Your task to perform on an android device: Add sony triple a to the cart on costco, then select checkout. Image 0: 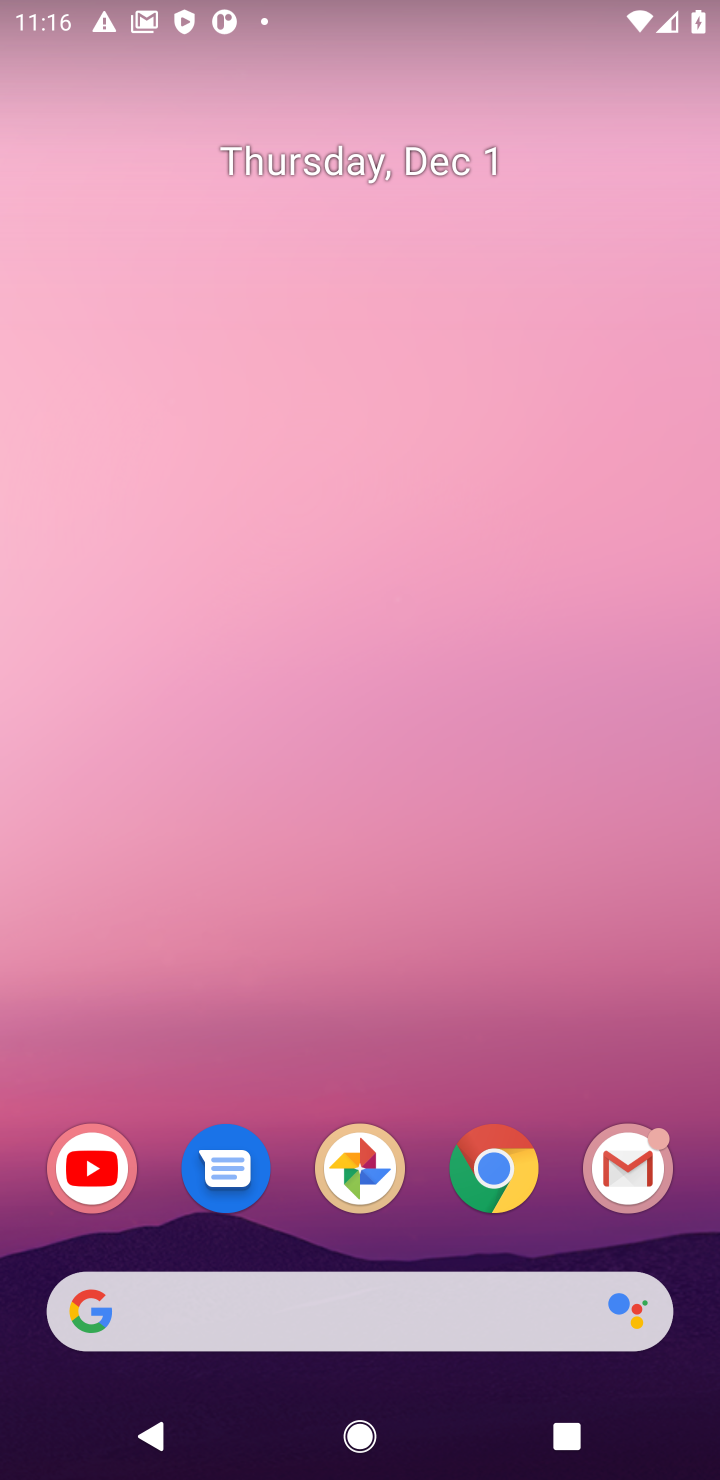
Step 0: click (491, 1183)
Your task to perform on an android device: Add sony triple a to the cart on costco, then select checkout. Image 1: 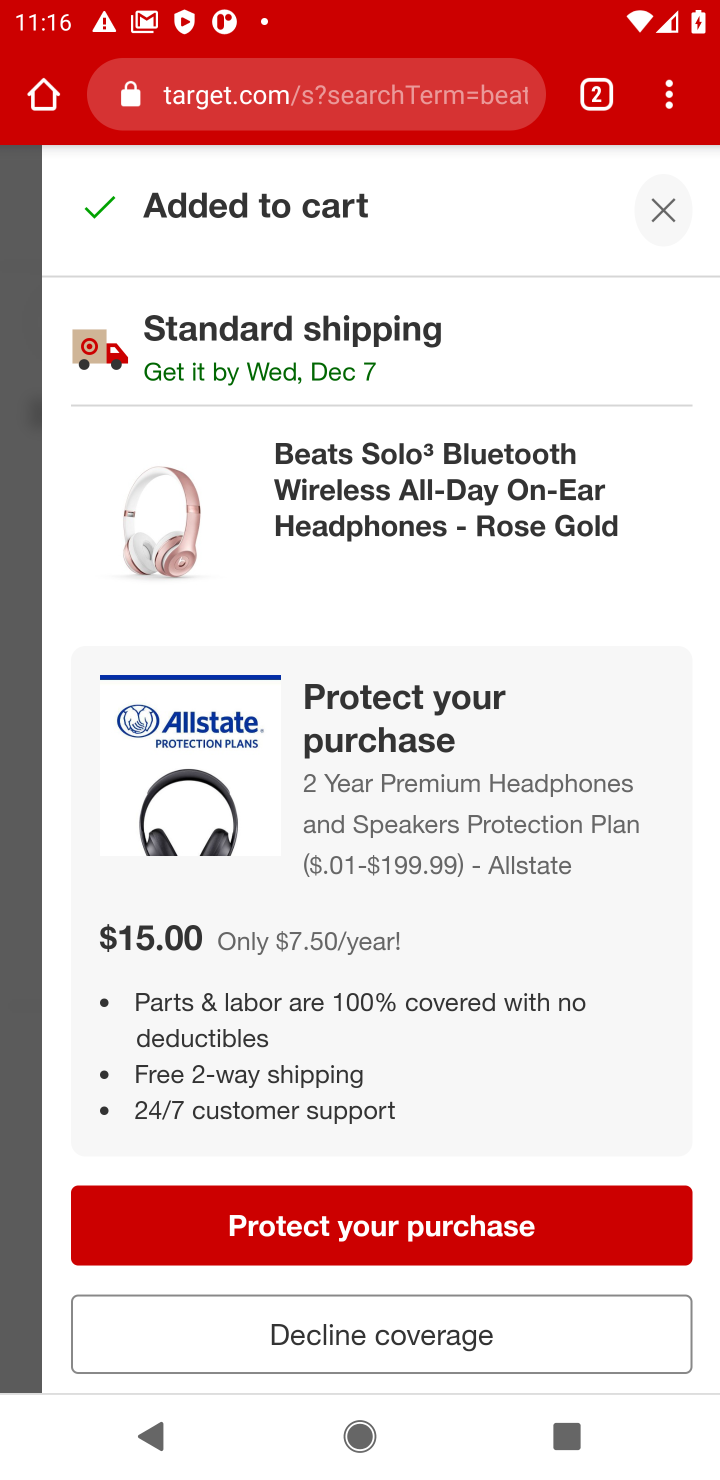
Step 1: click (287, 97)
Your task to perform on an android device: Add sony triple a to the cart on costco, then select checkout. Image 2: 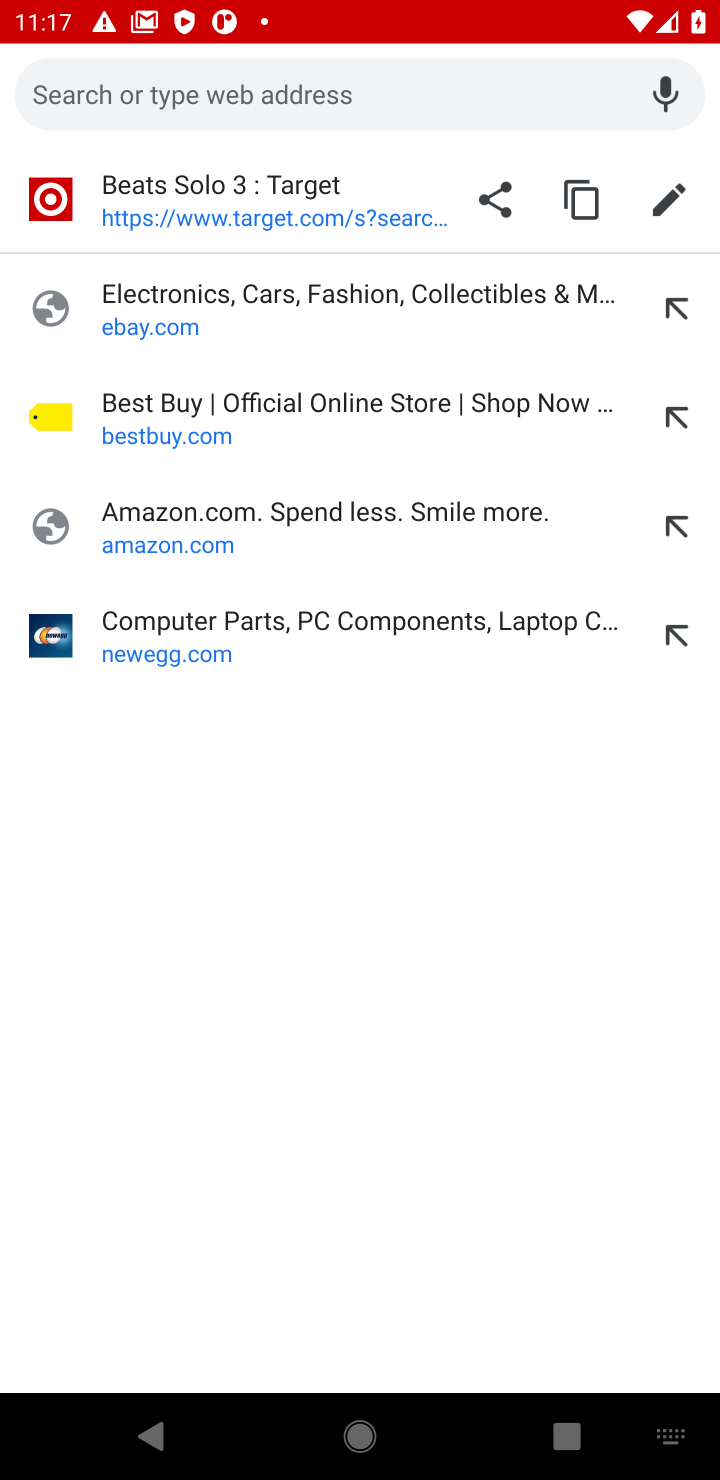
Step 2: type "costco.com"
Your task to perform on an android device: Add sony triple a to the cart on costco, then select checkout. Image 3: 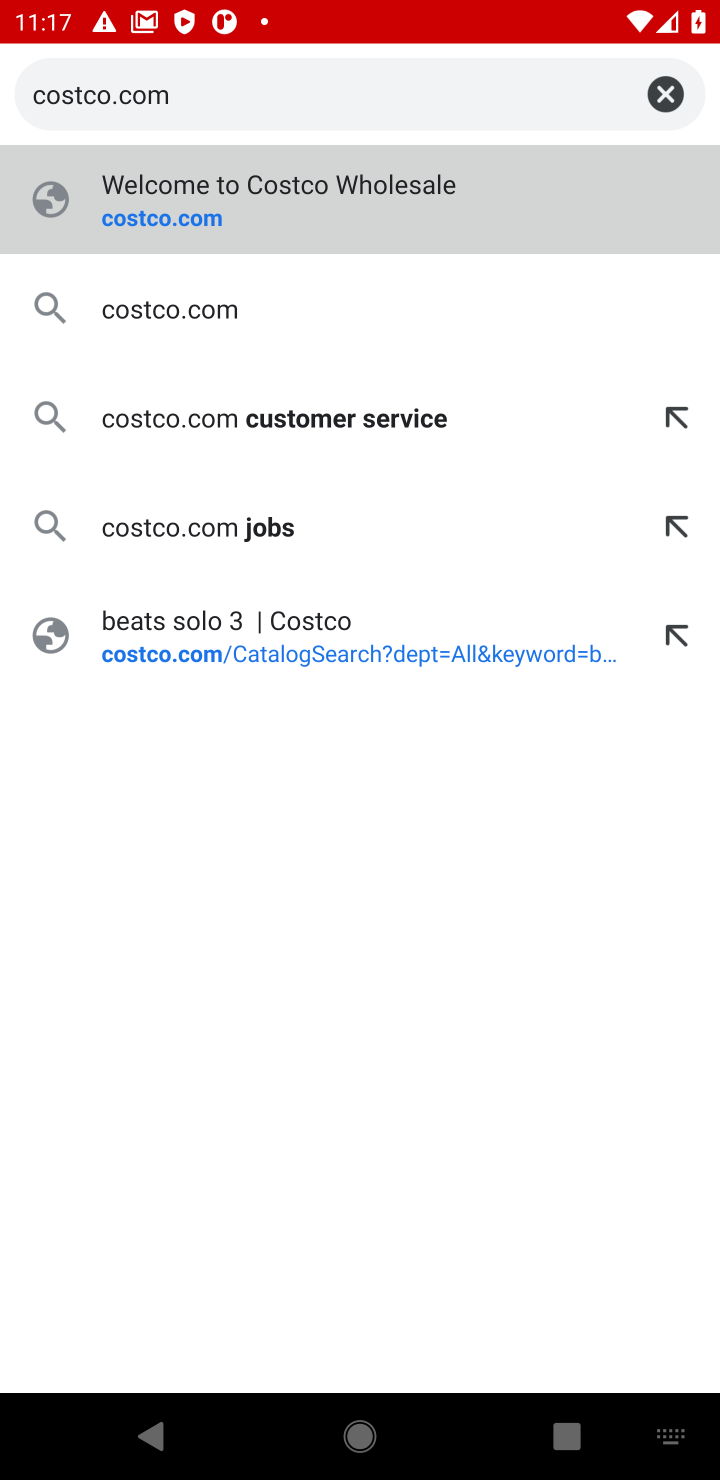
Step 3: click (145, 216)
Your task to perform on an android device: Add sony triple a to the cart on costco, then select checkout. Image 4: 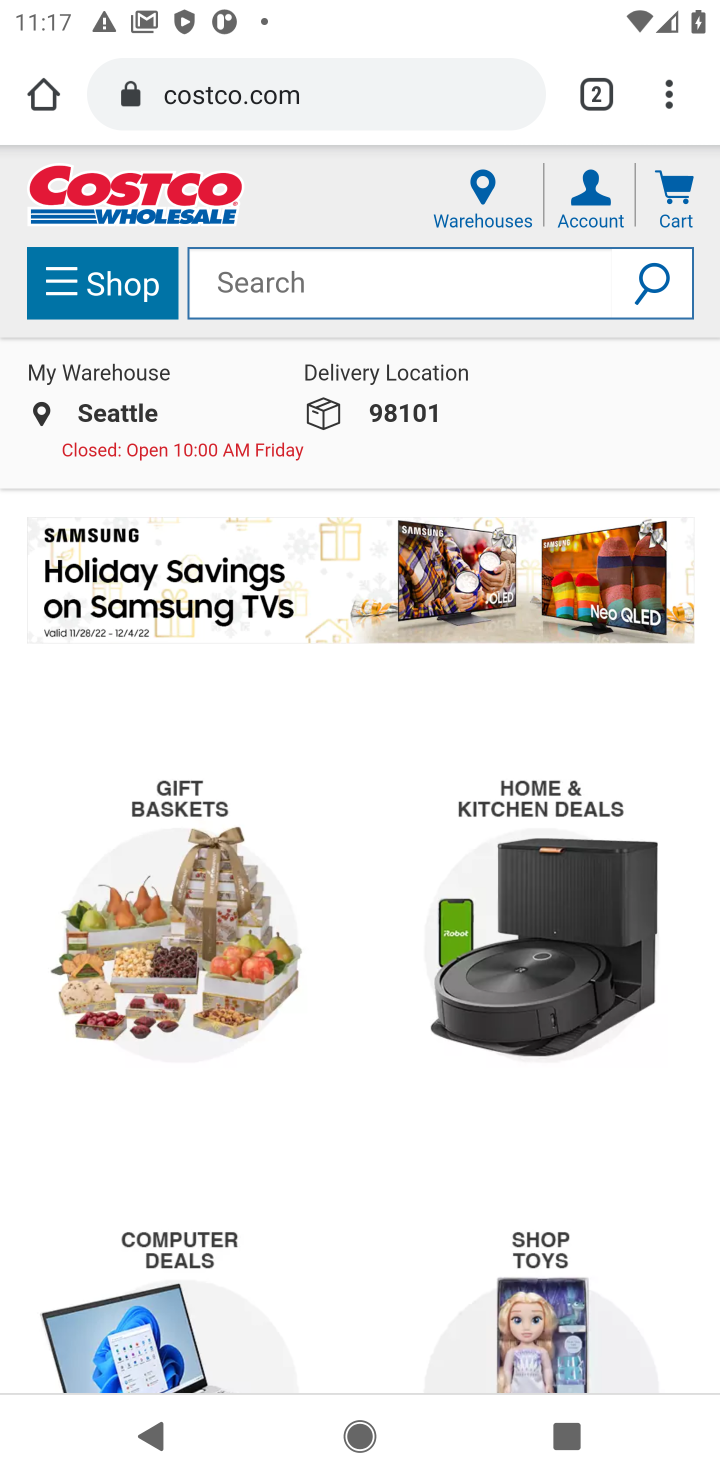
Step 4: click (247, 294)
Your task to perform on an android device: Add sony triple a to the cart on costco, then select checkout. Image 5: 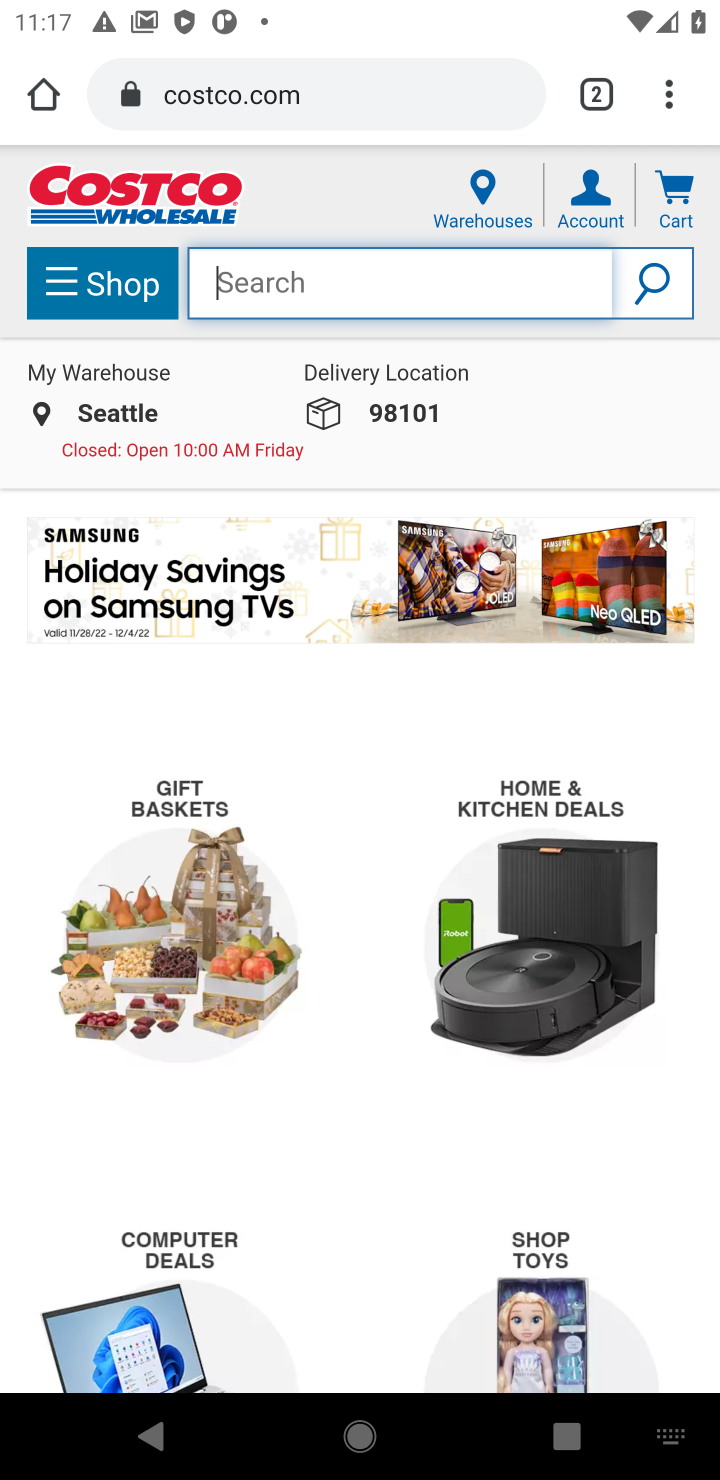
Step 5: type "sony triple a"
Your task to perform on an android device: Add sony triple a to the cart on costco, then select checkout. Image 6: 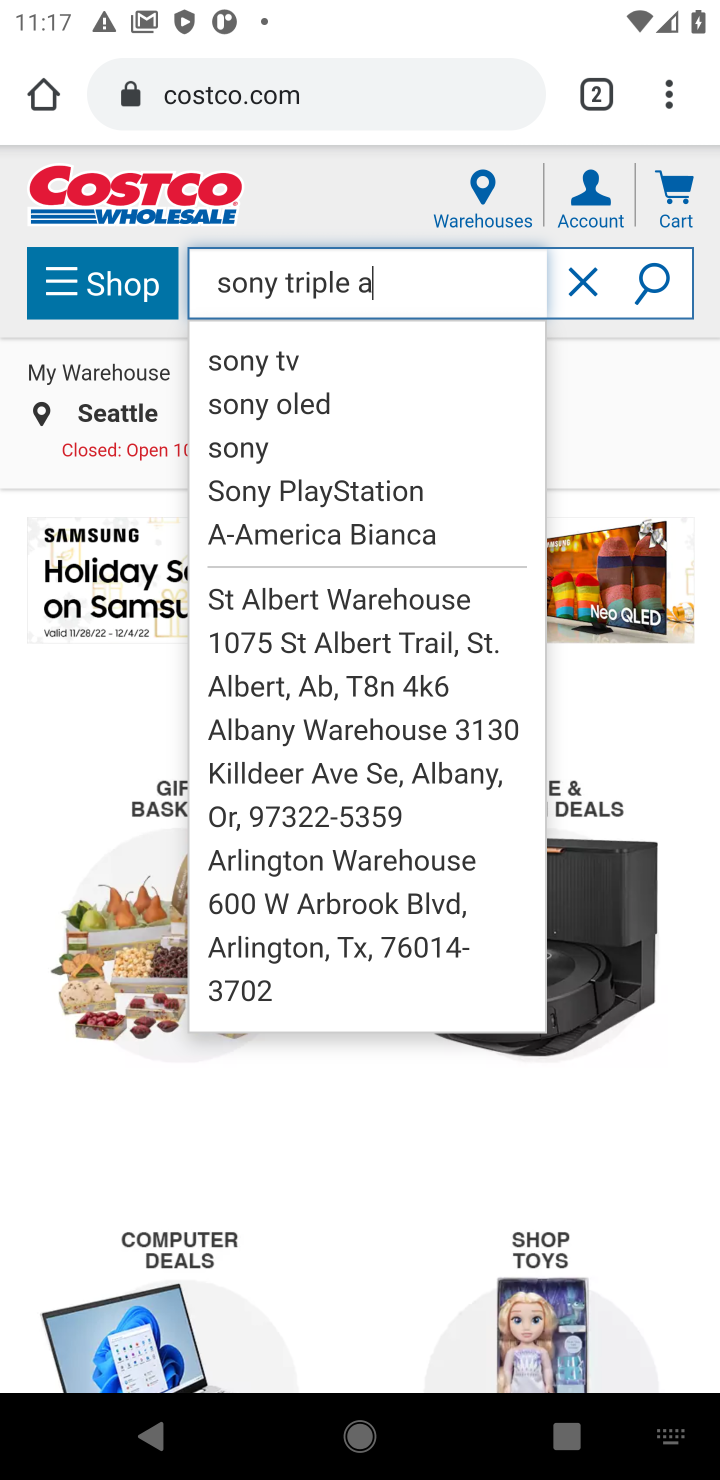
Step 6: click (658, 288)
Your task to perform on an android device: Add sony triple a to the cart on costco, then select checkout. Image 7: 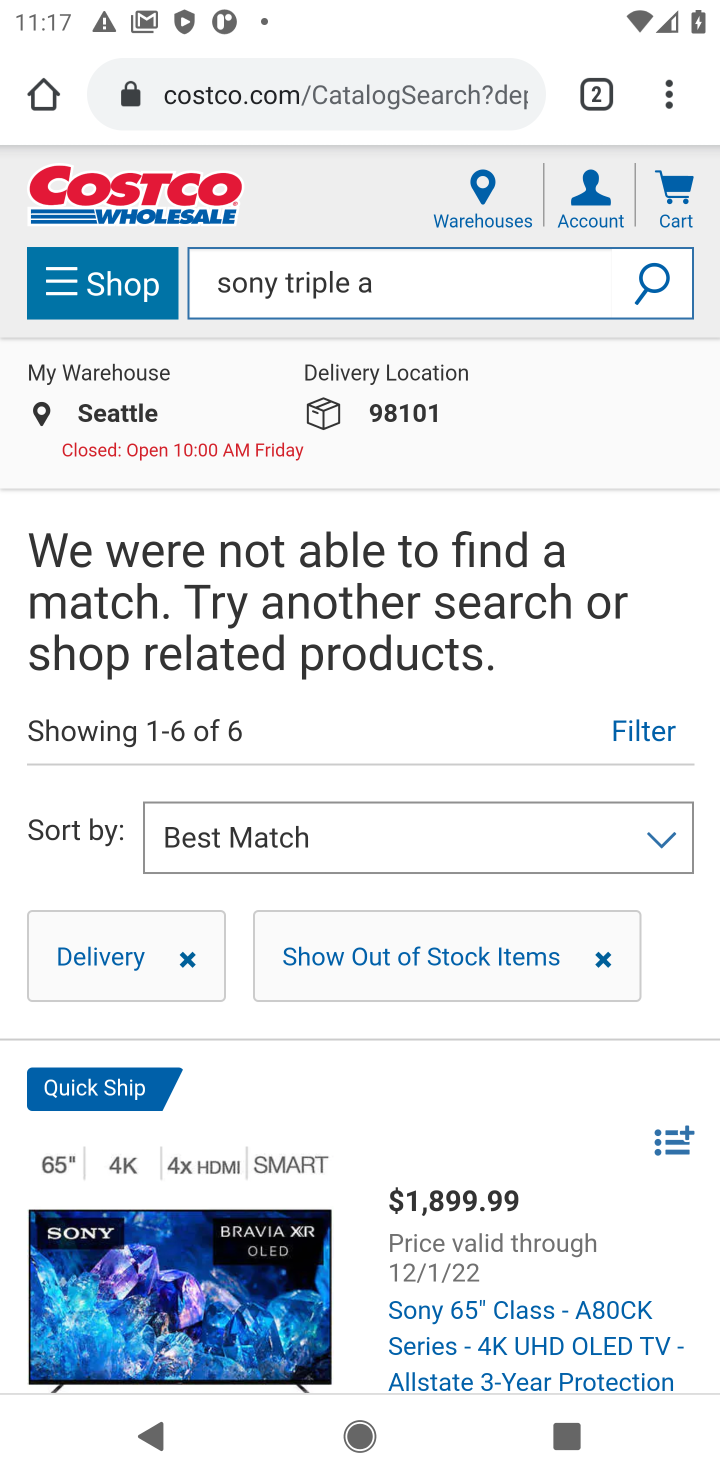
Step 7: task complete